Your task to perform on an android device: Open Chrome and go to the settings page Image 0: 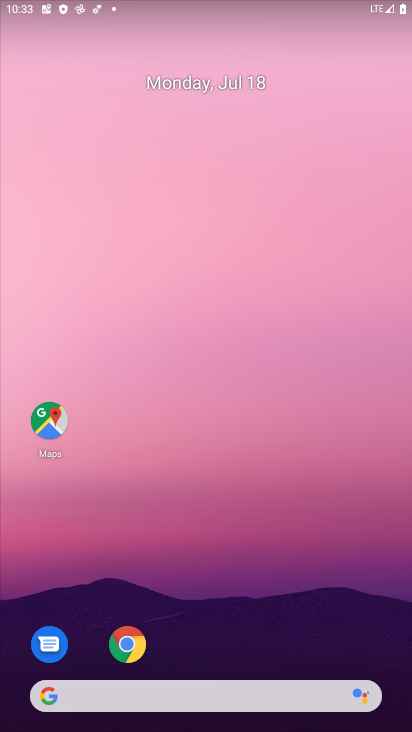
Step 0: drag from (361, 635) to (361, 206)
Your task to perform on an android device: Open Chrome and go to the settings page Image 1: 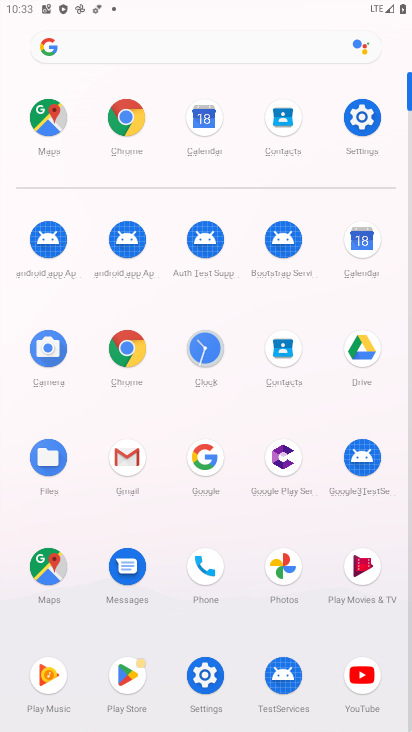
Step 1: click (127, 346)
Your task to perform on an android device: Open Chrome and go to the settings page Image 2: 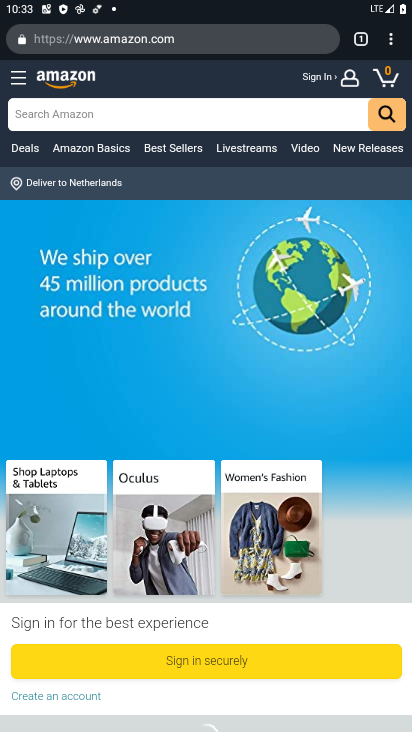
Step 2: click (392, 44)
Your task to perform on an android device: Open Chrome and go to the settings page Image 3: 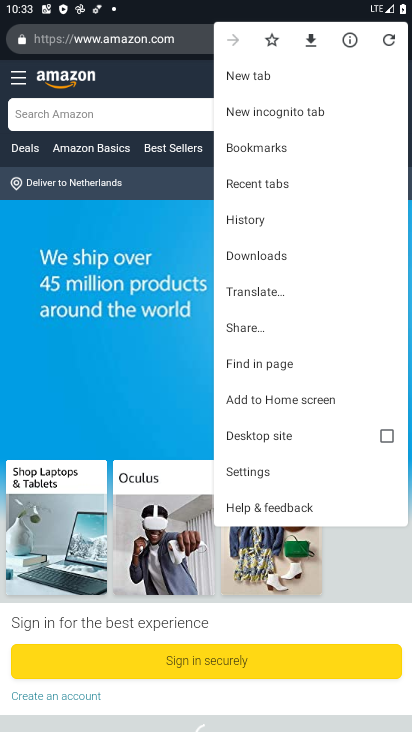
Step 3: click (333, 474)
Your task to perform on an android device: Open Chrome and go to the settings page Image 4: 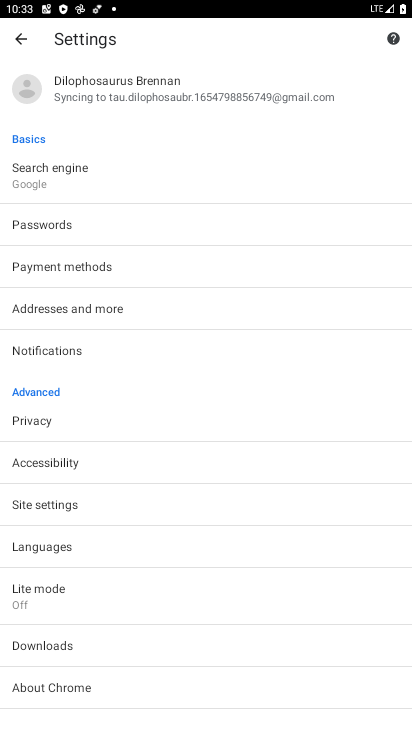
Step 4: task complete